Your task to perform on an android device: Open privacy settings Image 0: 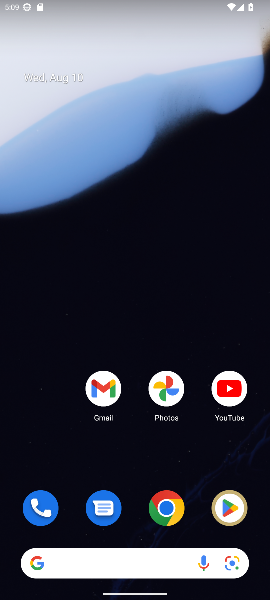
Step 0: press home button
Your task to perform on an android device: Open privacy settings Image 1: 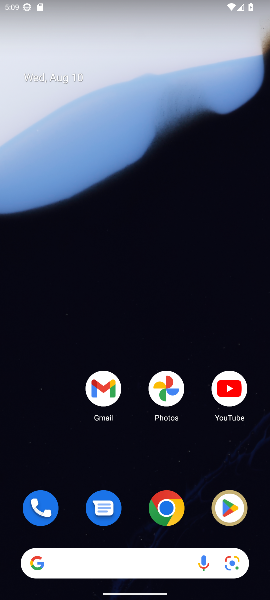
Step 1: drag from (131, 529) to (98, 65)
Your task to perform on an android device: Open privacy settings Image 2: 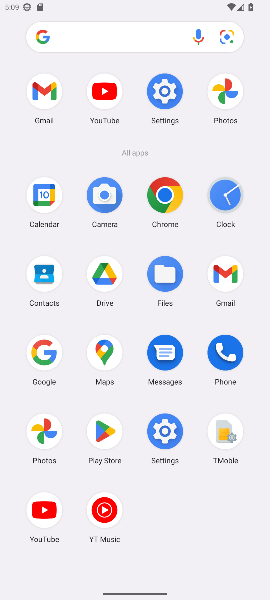
Step 2: click (173, 92)
Your task to perform on an android device: Open privacy settings Image 3: 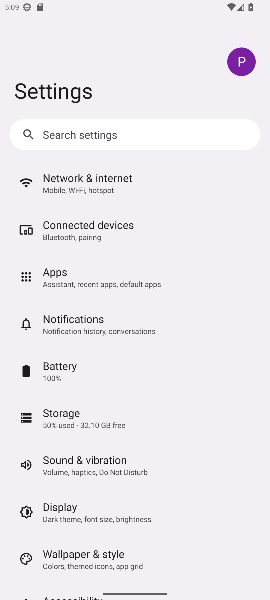
Step 3: drag from (190, 501) to (132, 212)
Your task to perform on an android device: Open privacy settings Image 4: 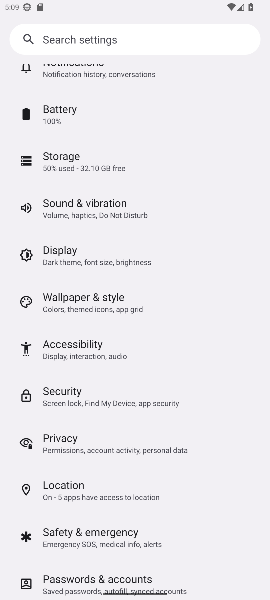
Step 4: click (70, 446)
Your task to perform on an android device: Open privacy settings Image 5: 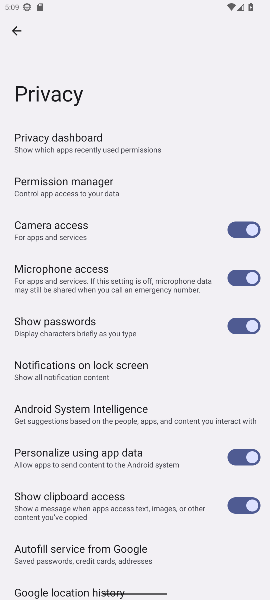
Step 5: task complete